Your task to perform on an android device: allow notifications from all sites in the chrome app Image 0: 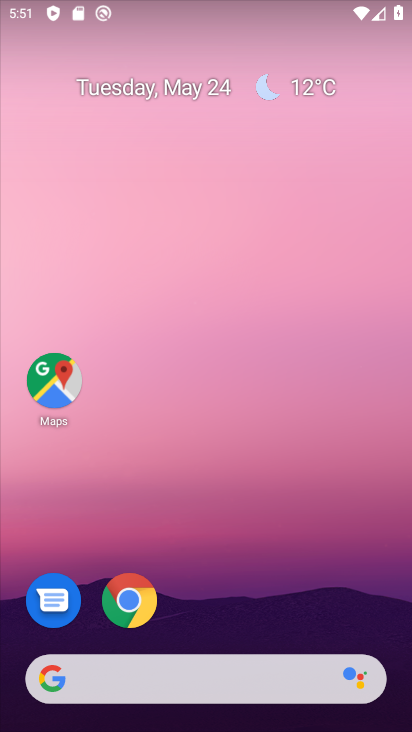
Step 0: drag from (329, 671) to (328, 12)
Your task to perform on an android device: allow notifications from all sites in the chrome app Image 1: 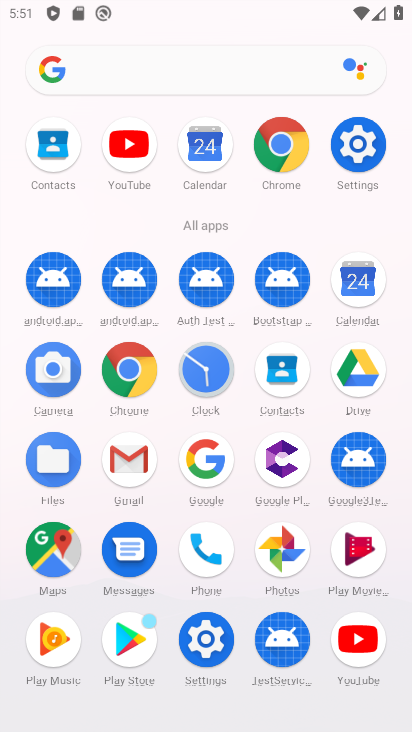
Step 1: click (119, 368)
Your task to perform on an android device: allow notifications from all sites in the chrome app Image 2: 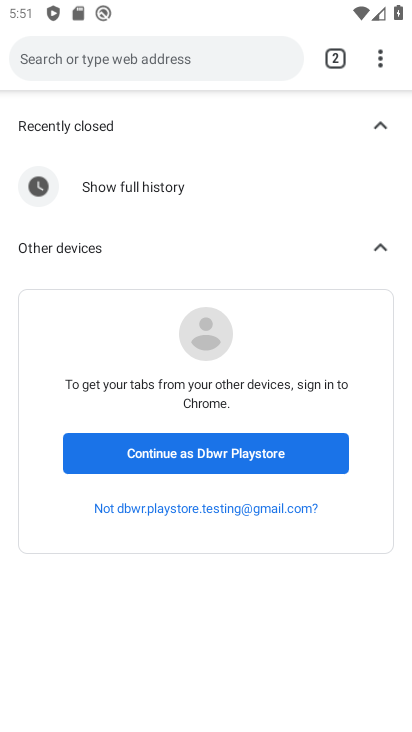
Step 2: click (371, 56)
Your task to perform on an android device: allow notifications from all sites in the chrome app Image 3: 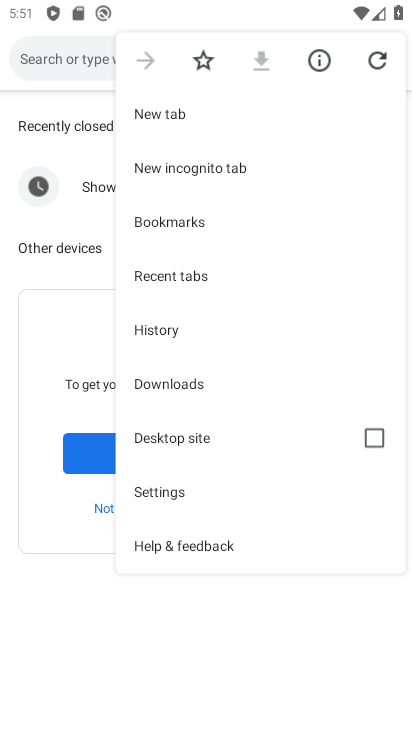
Step 3: click (185, 485)
Your task to perform on an android device: allow notifications from all sites in the chrome app Image 4: 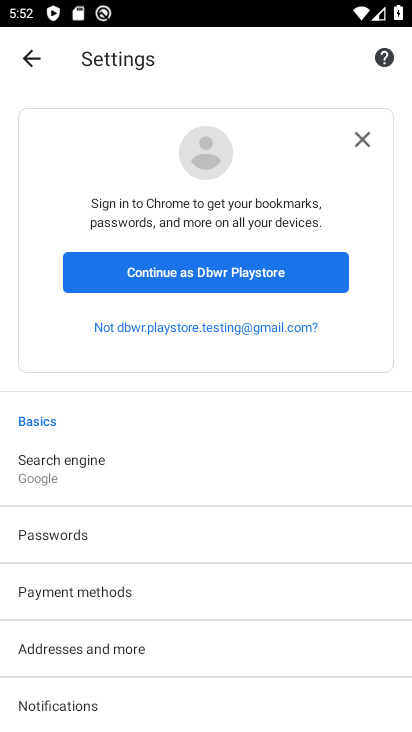
Step 4: drag from (143, 624) to (188, 123)
Your task to perform on an android device: allow notifications from all sites in the chrome app Image 5: 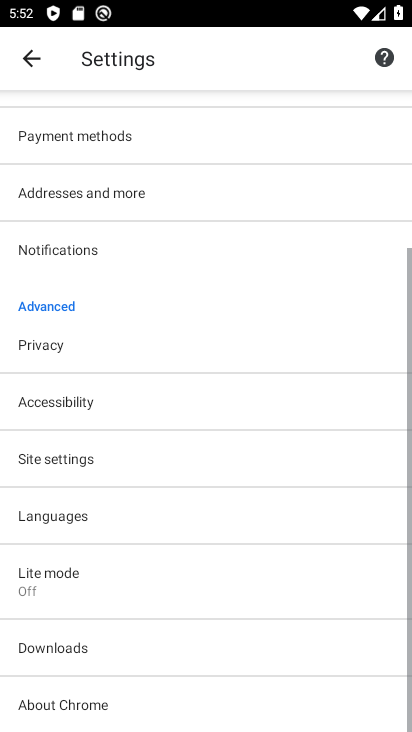
Step 5: click (87, 246)
Your task to perform on an android device: allow notifications from all sites in the chrome app Image 6: 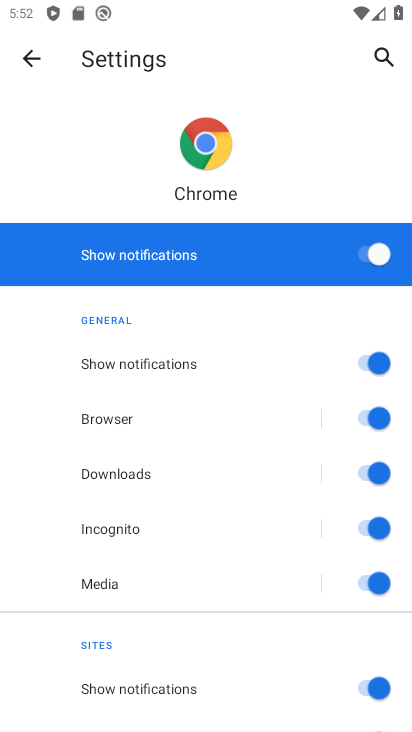
Step 6: drag from (258, 583) to (343, 61)
Your task to perform on an android device: allow notifications from all sites in the chrome app Image 7: 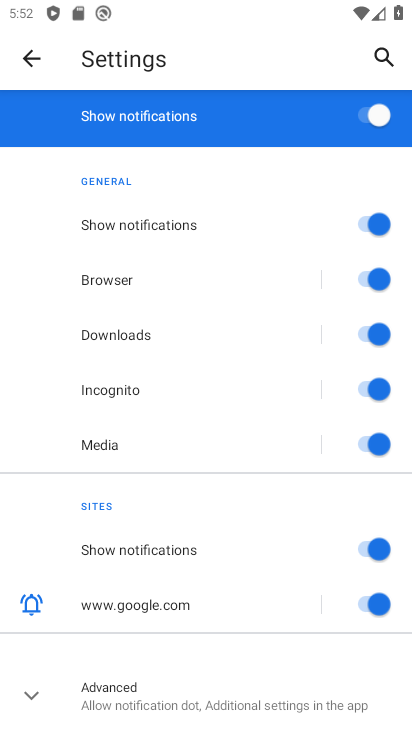
Step 7: click (295, 705)
Your task to perform on an android device: allow notifications from all sites in the chrome app Image 8: 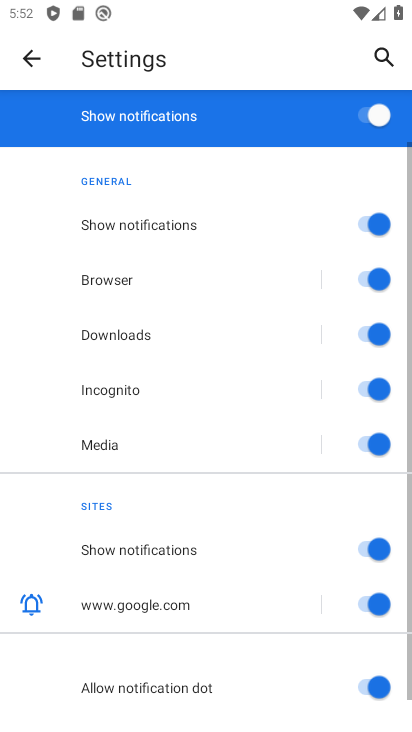
Step 8: task complete